Your task to perform on an android device: Turn off the flashlight Image 0: 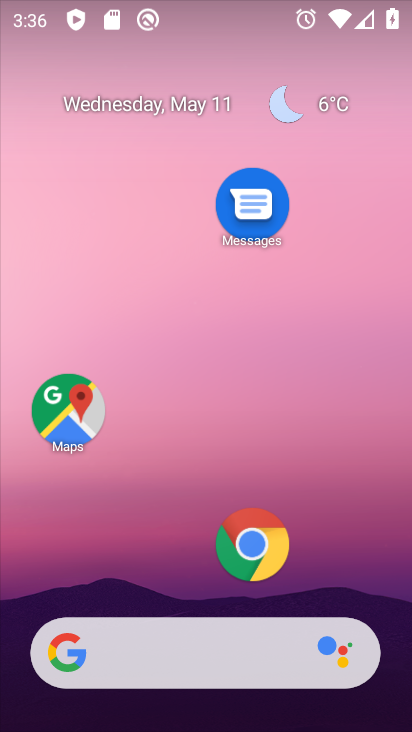
Step 0: drag from (166, 547) to (258, 21)
Your task to perform on an android device: Turn off the flashlight Image 1: 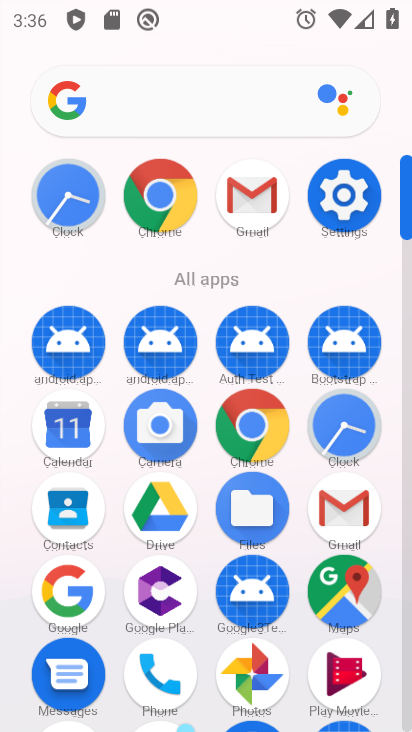
Step 1: click (345, 203)
Your task to perform on an android device: Turn off the flashlight Image 2: 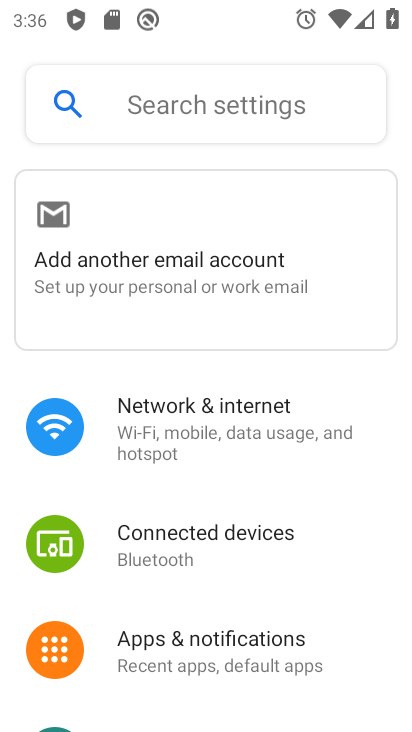
Step 2: click (182, 109)
Your task to perform on an android device: Turn off the flashlight Image 3: 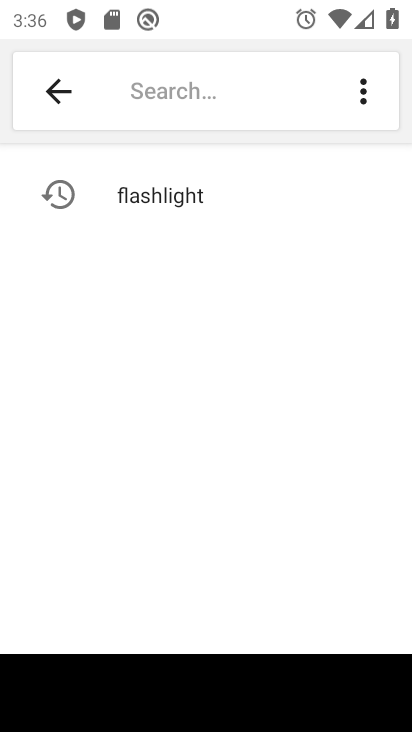
Step 3: type "flashlight"
Your task to perform on an android device: Turn off the flashlight Image 4: 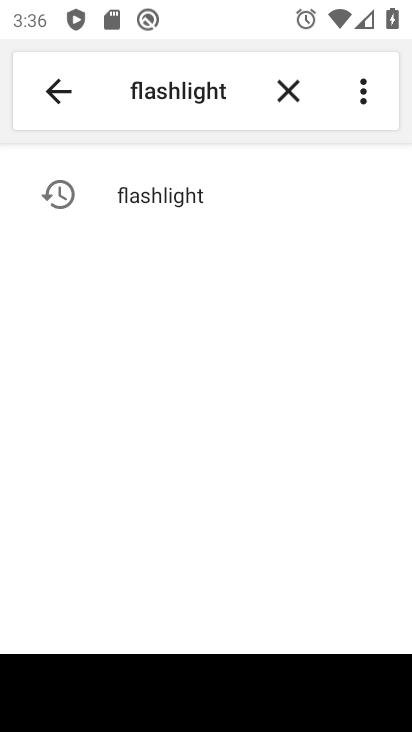
Step 4: click (188, 191)
Your task to perform on an android device: Turn off the flashlight Image 5: 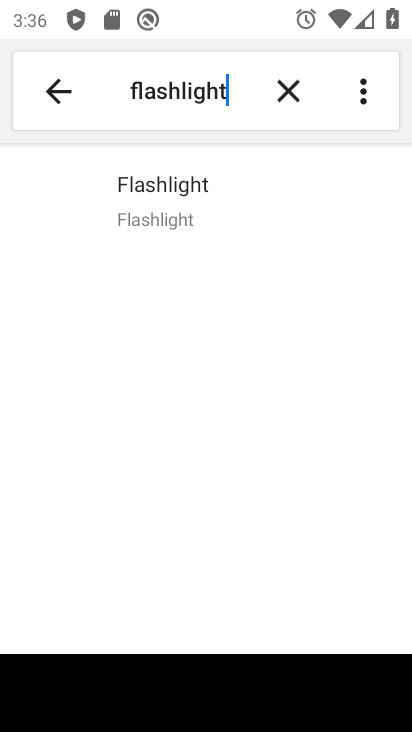
Step 5: click (196, 202)
Your task to perform on an android device: Turn off the flashlight Image 6: 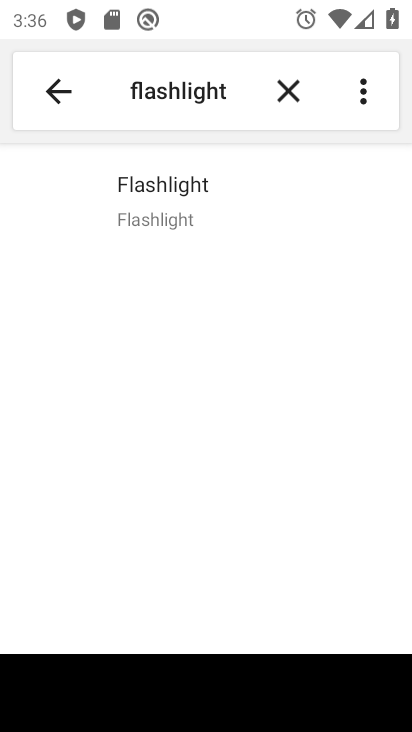
Step 6: task complete